Your task to perform on an android device: open app "AliExpress" Image 0: 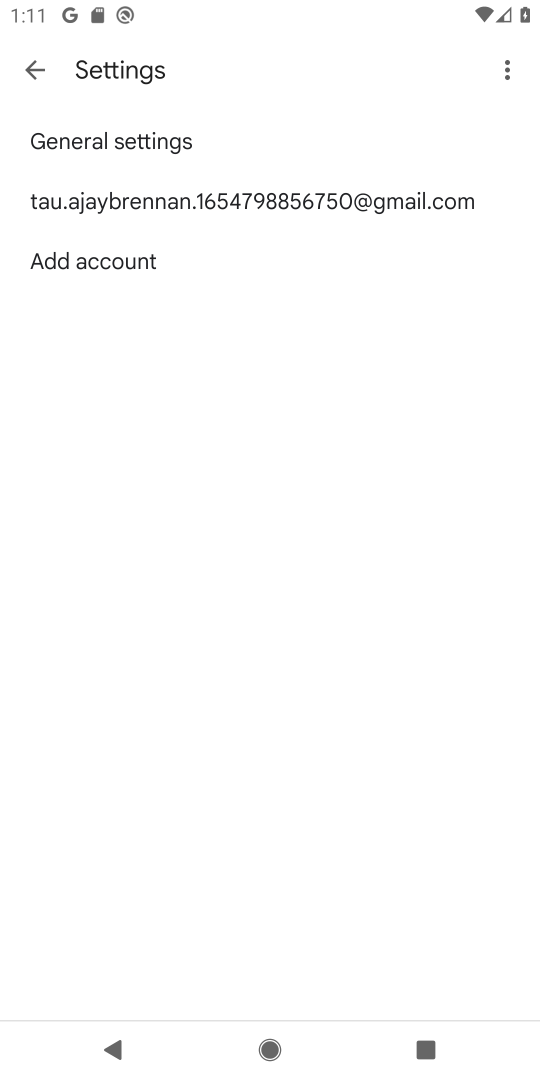
Step 0: press home button
Your task to perform on an android device: open app "AliExpress" Image 1: 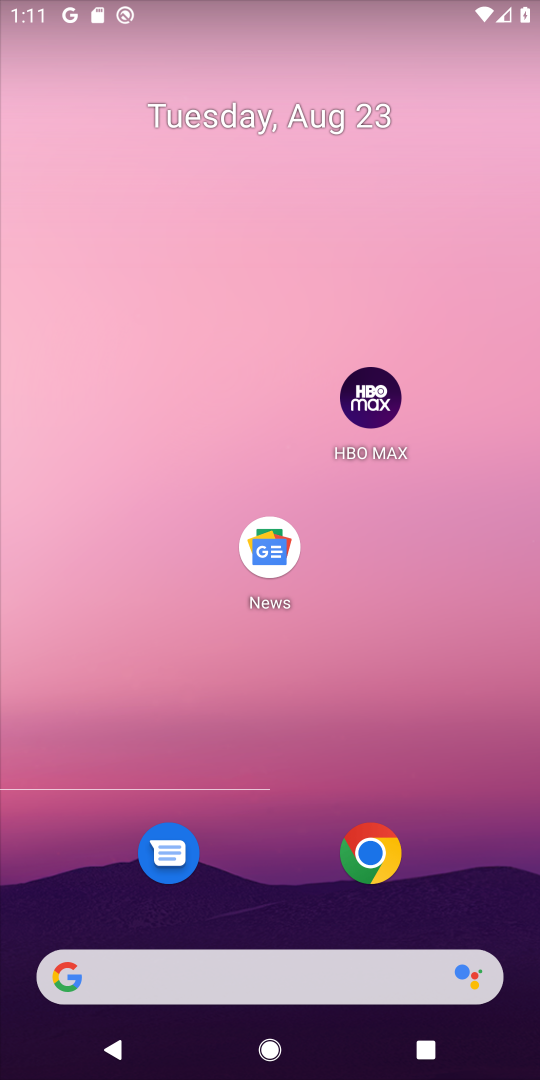
Step 1: drag from (499, 910) to (453, 232)
Your task to perform on an android device: open app "AliExpress" Image 2: 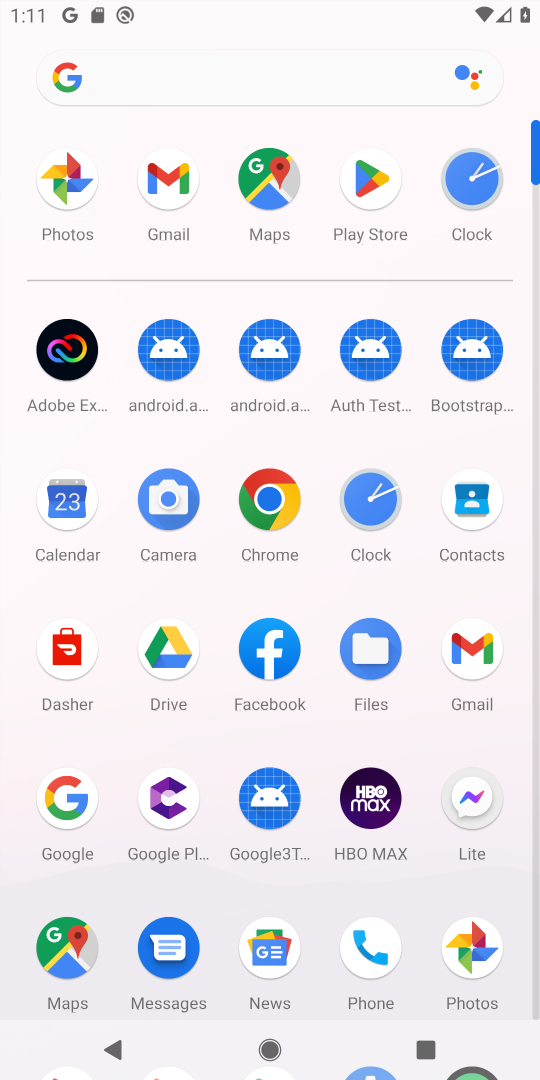
Step 2: drag from (419, 896) to (398, 408)
Your task to perform on an android device: open app "AliExpress" Image 3: 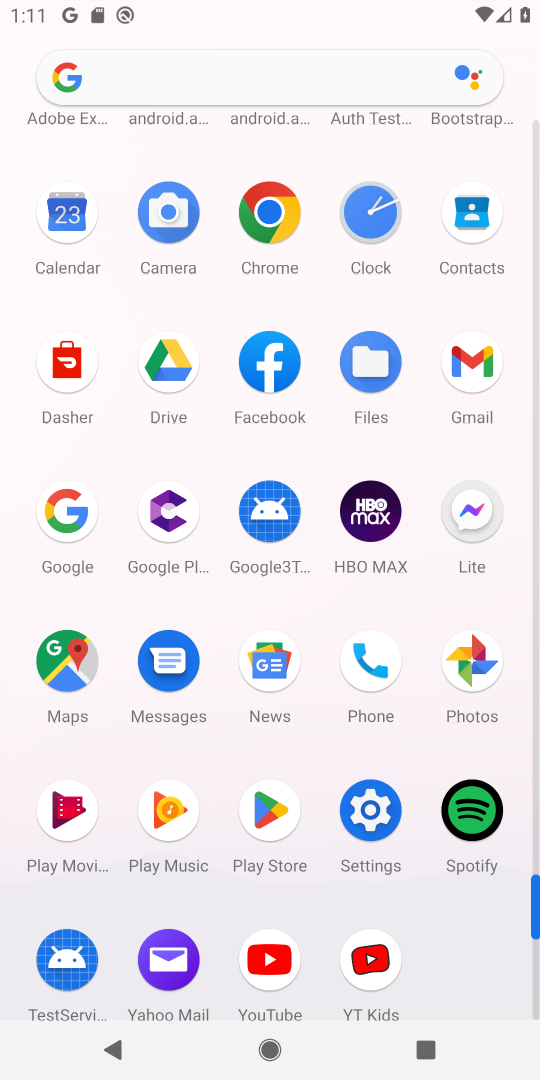
Step 3: click (270, 808)
Your task to perform on an android device: open app "AliExpress" Image 4: 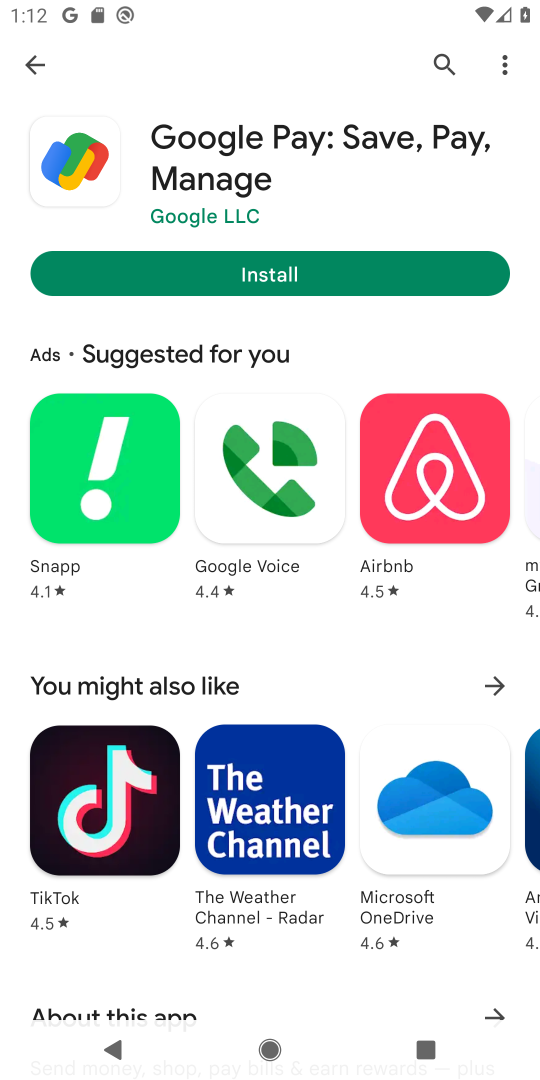
Step 4: click (439, 58)
Your task to perform on an android device: open app "AliExpress" Image 5: 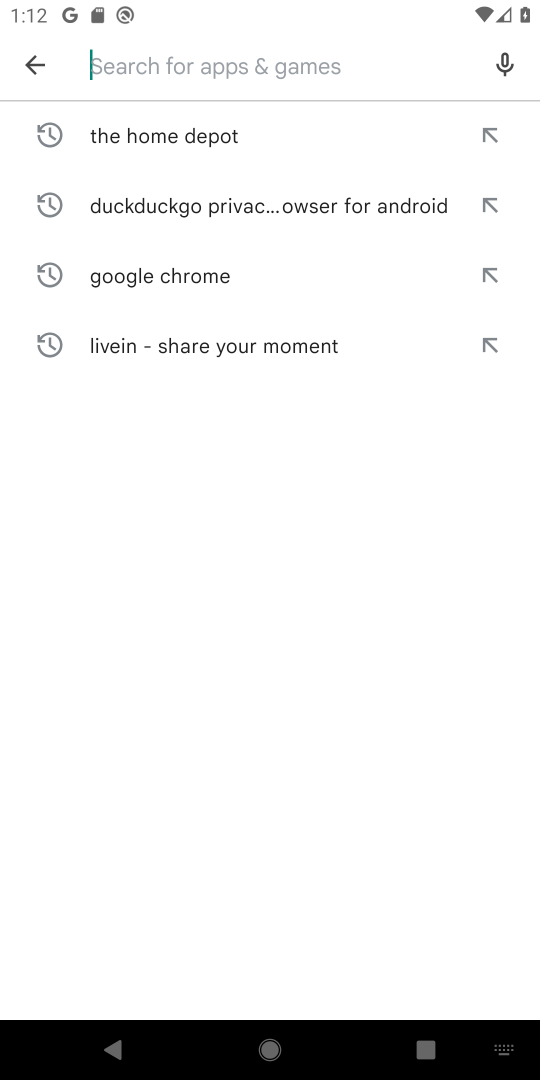
Step 5: type "AliExpress"
Your task to perform on an android device: open app "AliExpress" Image 6: 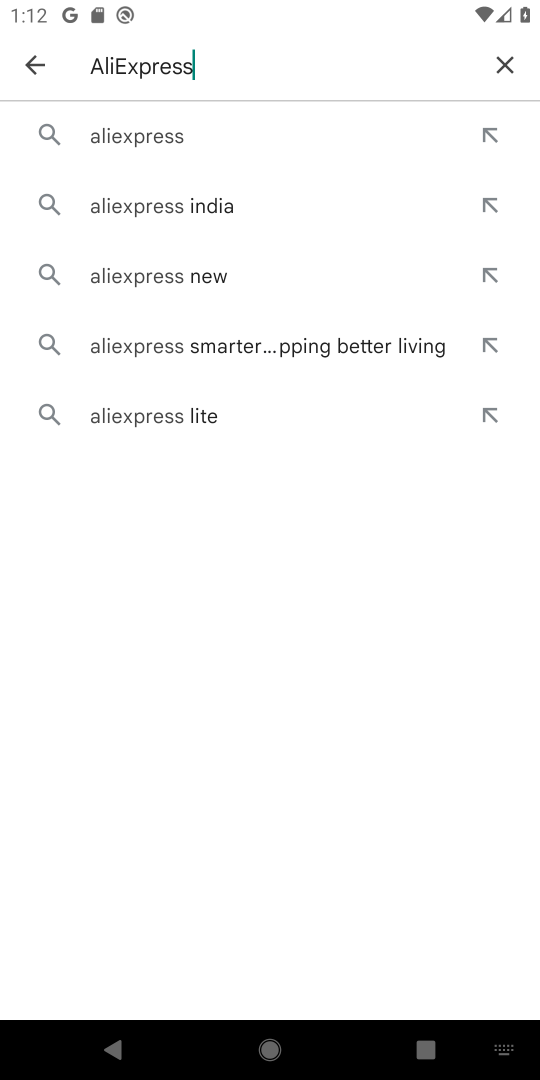
Step 6: click (137, 129)
Your task to perform on an android device: open app "AliExpress" Image 7: 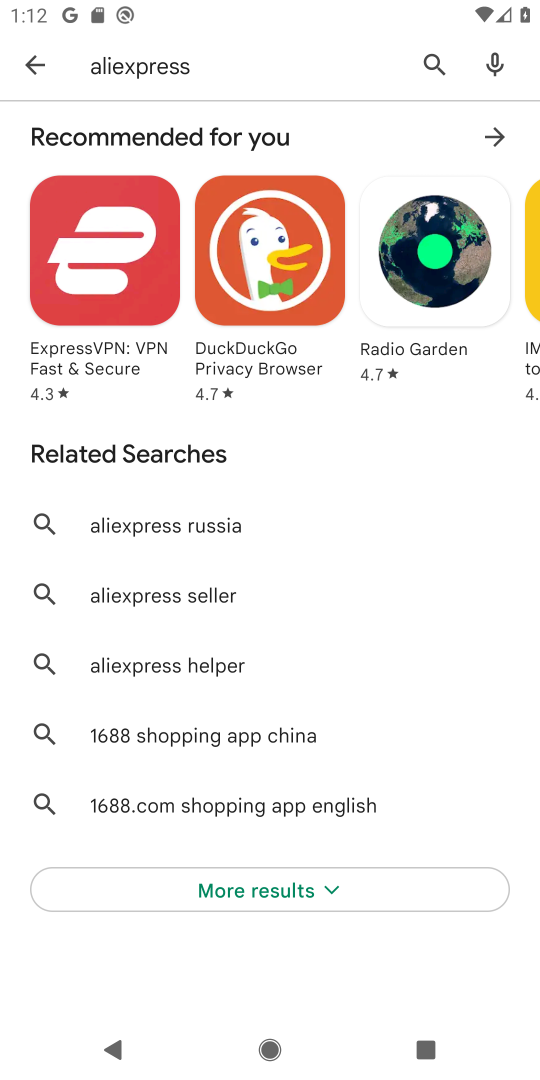
Step 7: task complete